Your task to perform on an android device: Add usb-c to the cart on bestbuy.com, then select checkout. Image 0: 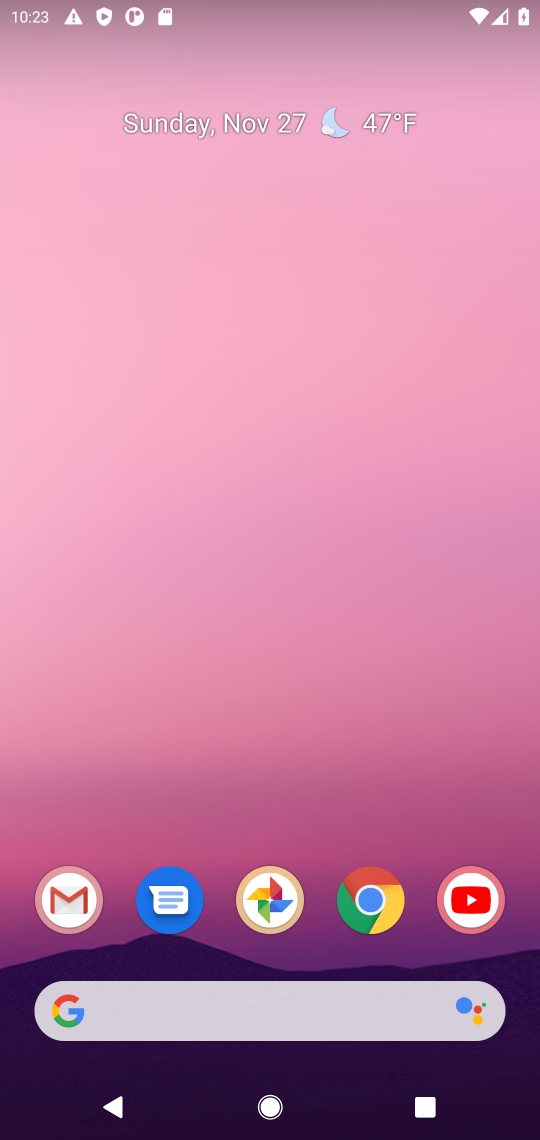
Step 0: click (372, 903)
Your task to perform on an android device: Add usb-c to the cart on bestbuy.com, then select checkout. Image 1: 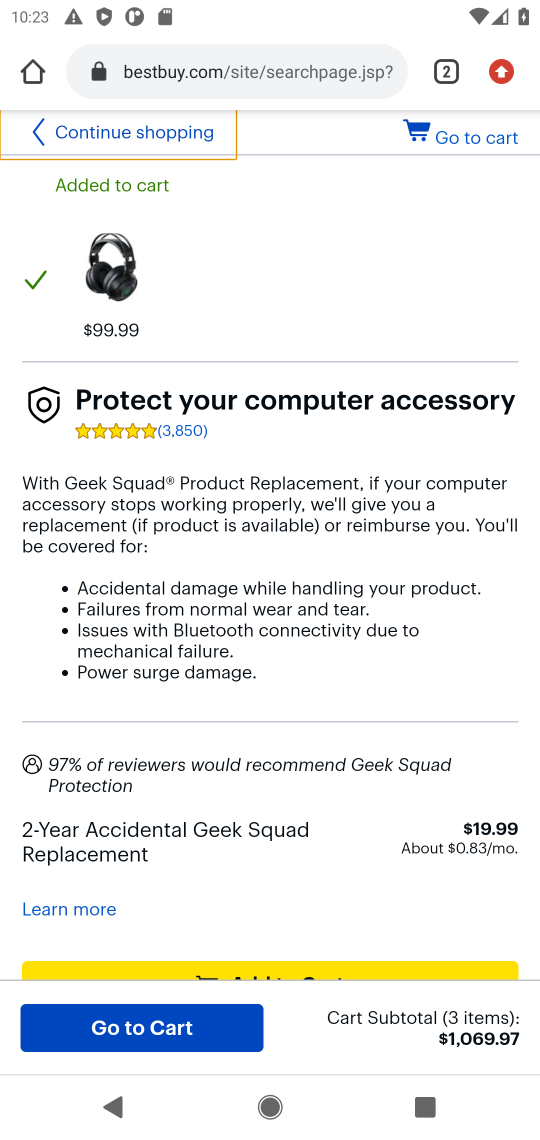
Step 1: drag from (379, 292) to (380, 689)
Your task to perform on an android device: Add usb-c to the cart on bestbuy.com, then select checkout. Image 2: 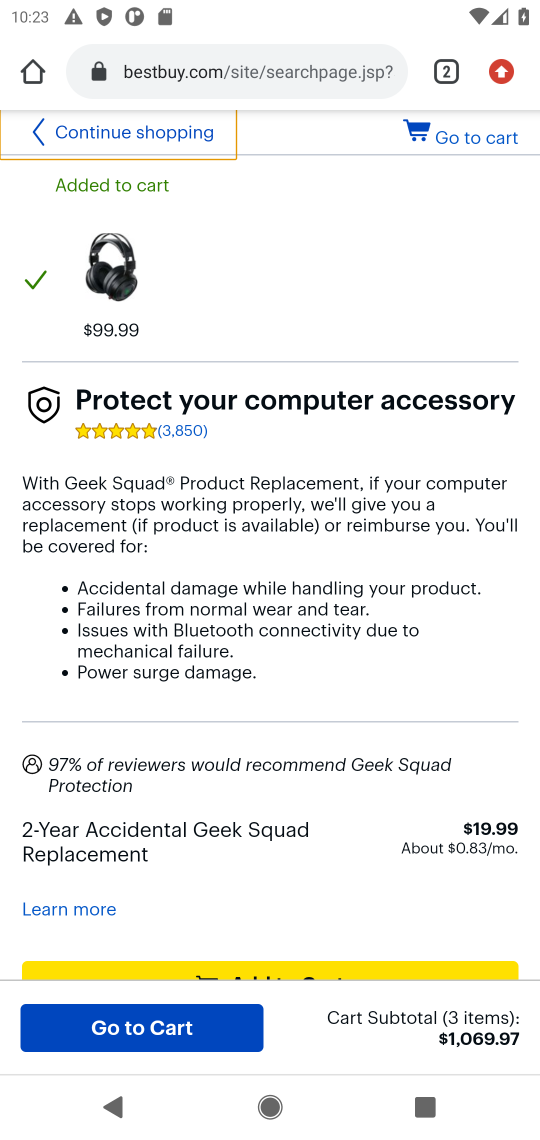
Step 2: press back button
Your task to perform on an android device: Add usb-c to the cart on bestbuy.com, then select checkout. Image 3: 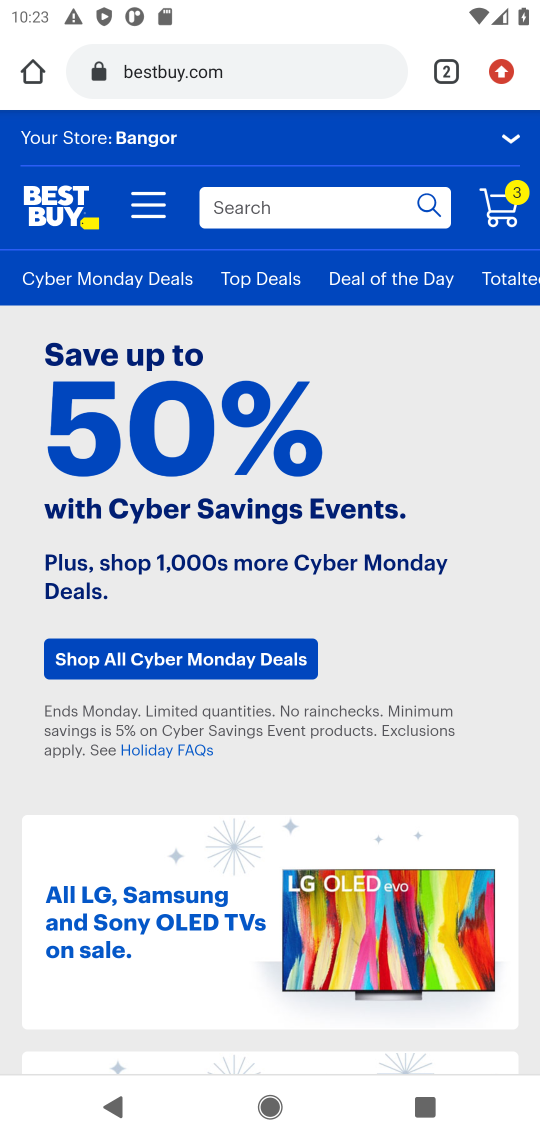
Step 3: click (242, 208)
Your task to perform on an android device: Add usb-c to the cart on bestbuy.com, then select checkout. Image 4: 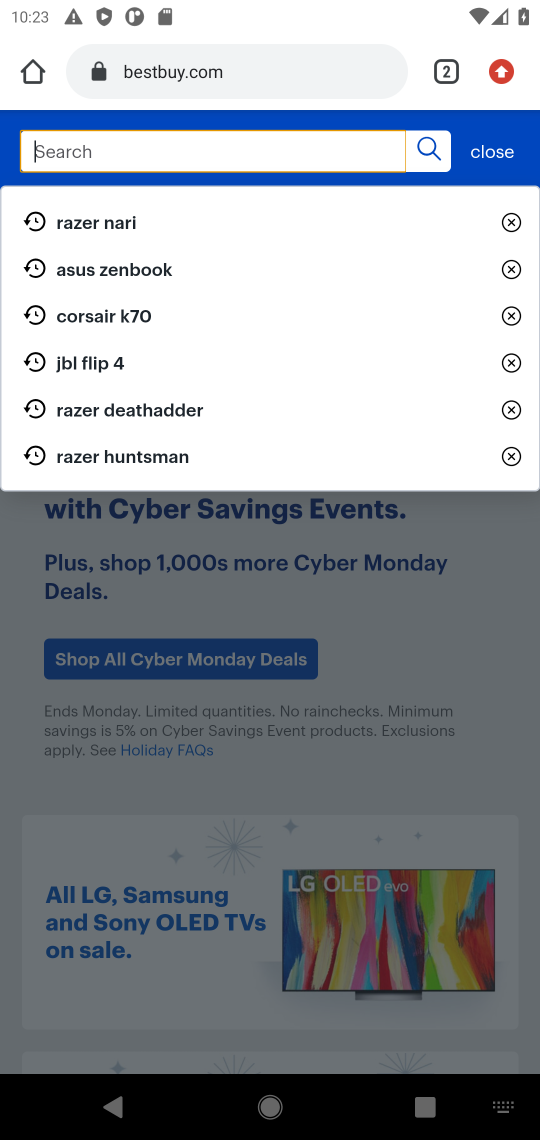
Step 4: type "usb-c"
Your task to perform on an android device: Add usb-c to the cart on bestbuy.com, then select checkout. Image 5: 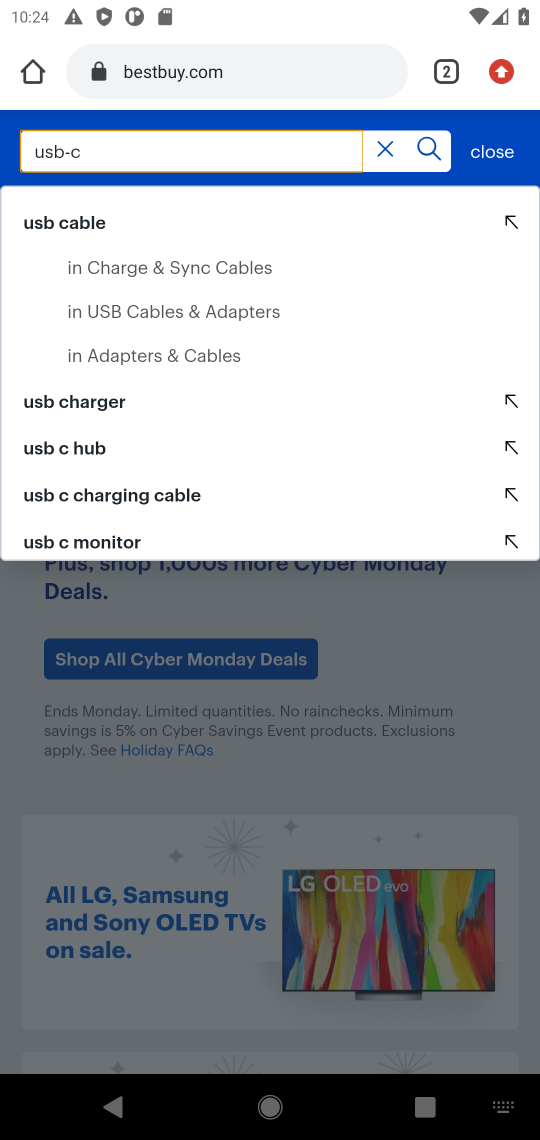
Step 5: click (54, 442)
Your task to perform on an android device: Add usb-c to the cart on bestbuy.com, then select checkout. Image 6: 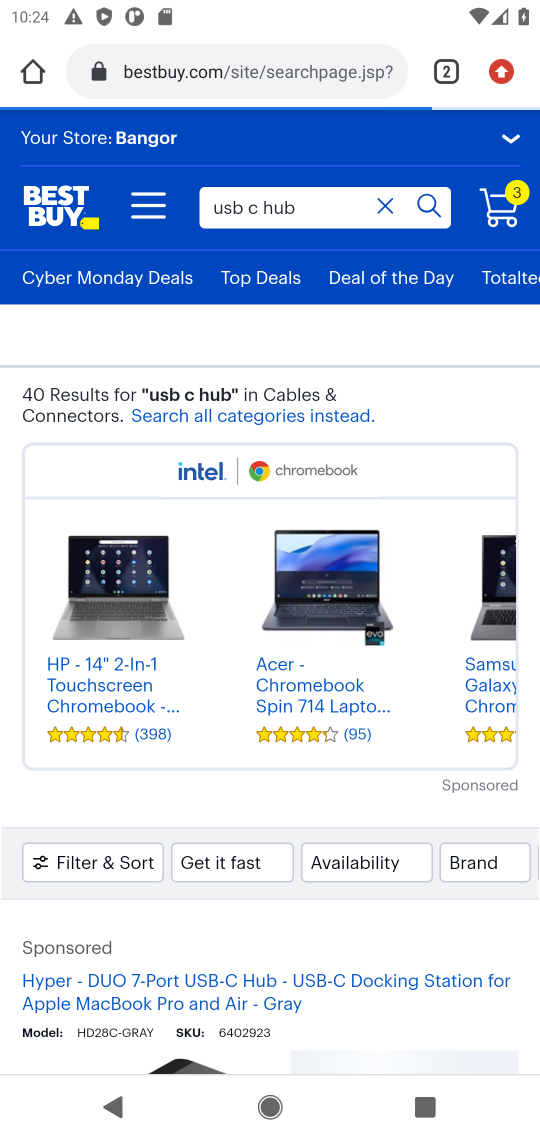
Step 6: drag from (216, 949) to (216, 628)
Your task to perform on an android device: Add usb-c to the cart on bestbuy.com, then select checkout. Image 7: 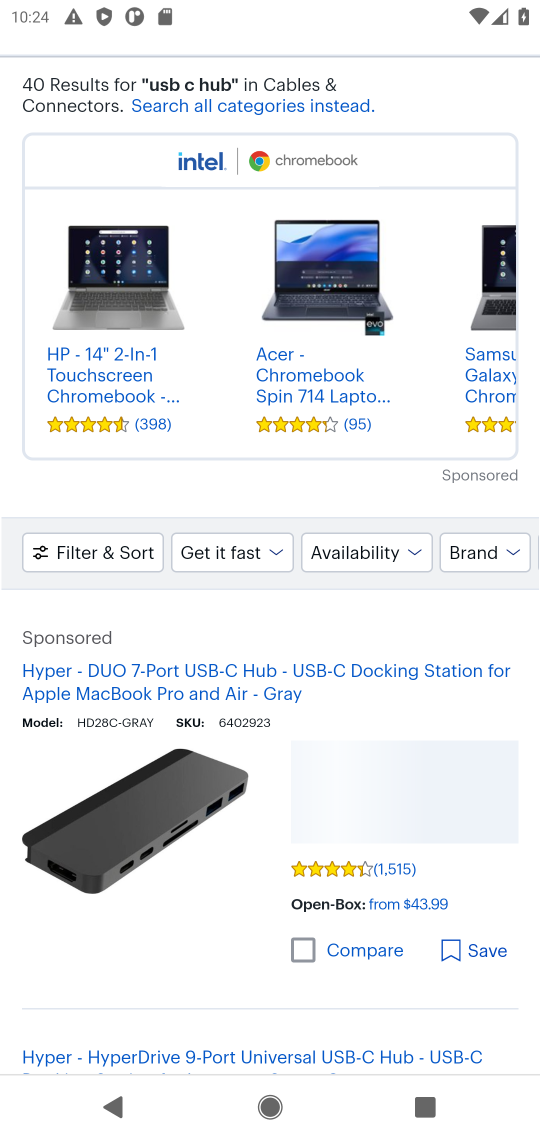
Step 7: drag from (204, 843) to (249, 597)
Your task to perform on an android device: Add usb-c to the cart on bestbuy.com, then select checkout. Image 8: 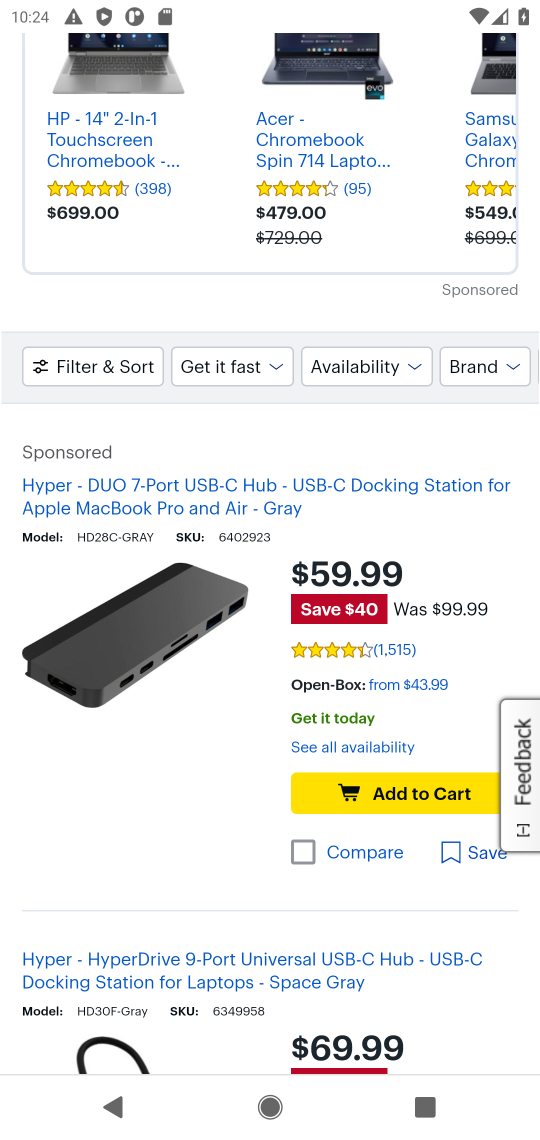
Step 8: click (371, 782)
Your task to perform on an android device: Add usb-c to the cart on bestbuy.com, then select checkout. Image 9: 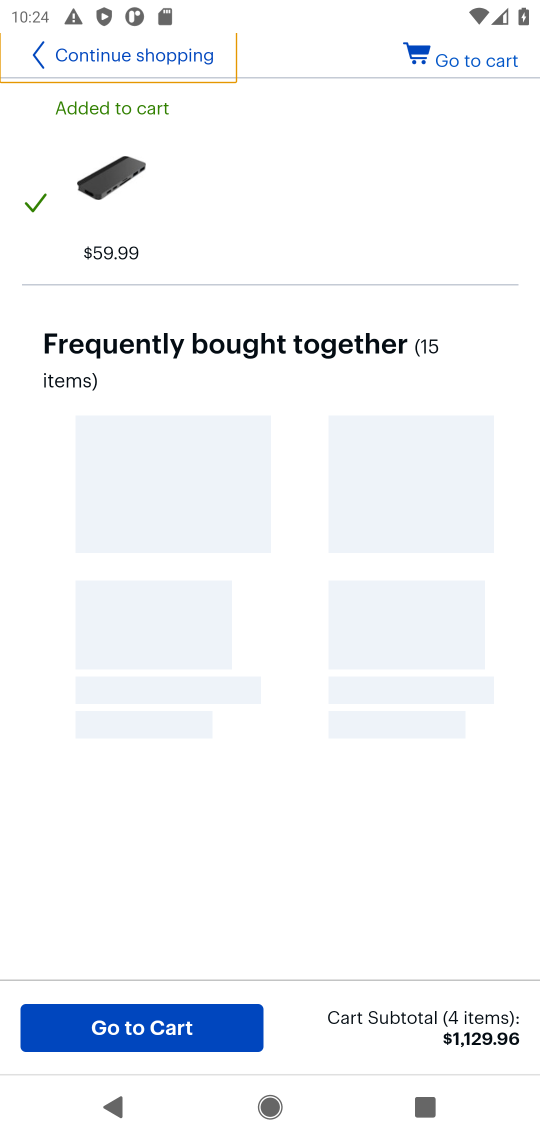
Step 9: click (476, 60)
Your task to perform on an android device: Add usb-c to the cart on bestbuy.com, then select checkout. Image 10: 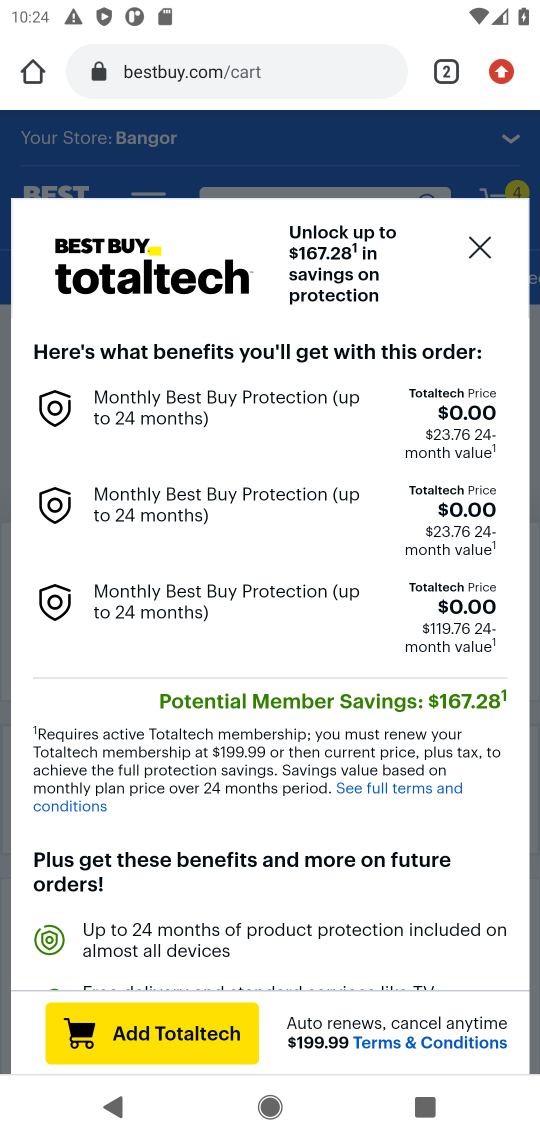
Step 10: click (482, 252)
Your task to perform on an android device: Add usb-c to the cart on bestbuy.com, then select checkout. Image 11: 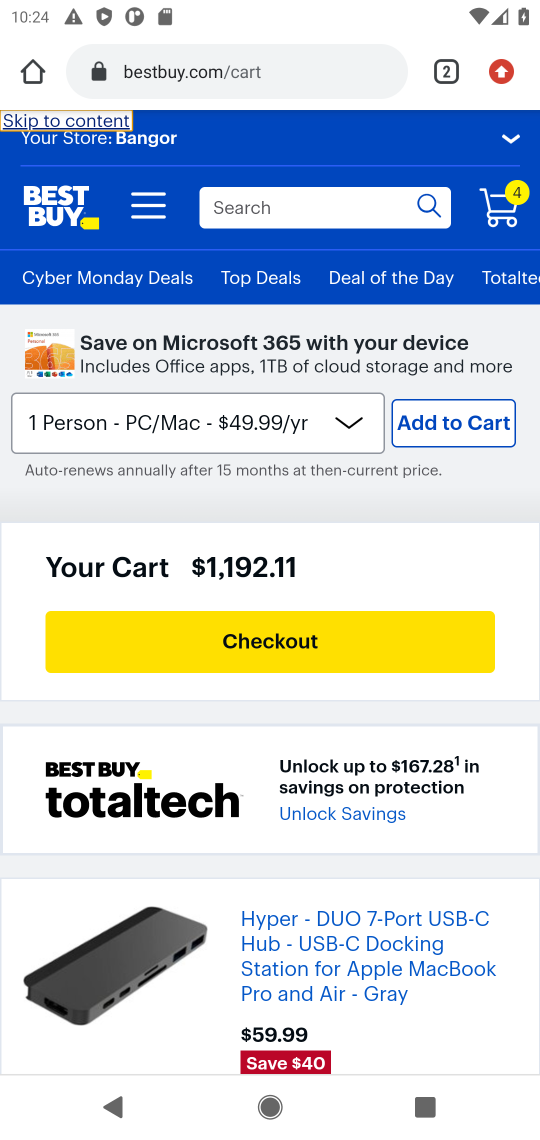
Step 11: click (243, 626)
Your task to perform on an android device: Add usb-c to the cart on bestbuy.com, then select checkout. Image 12: 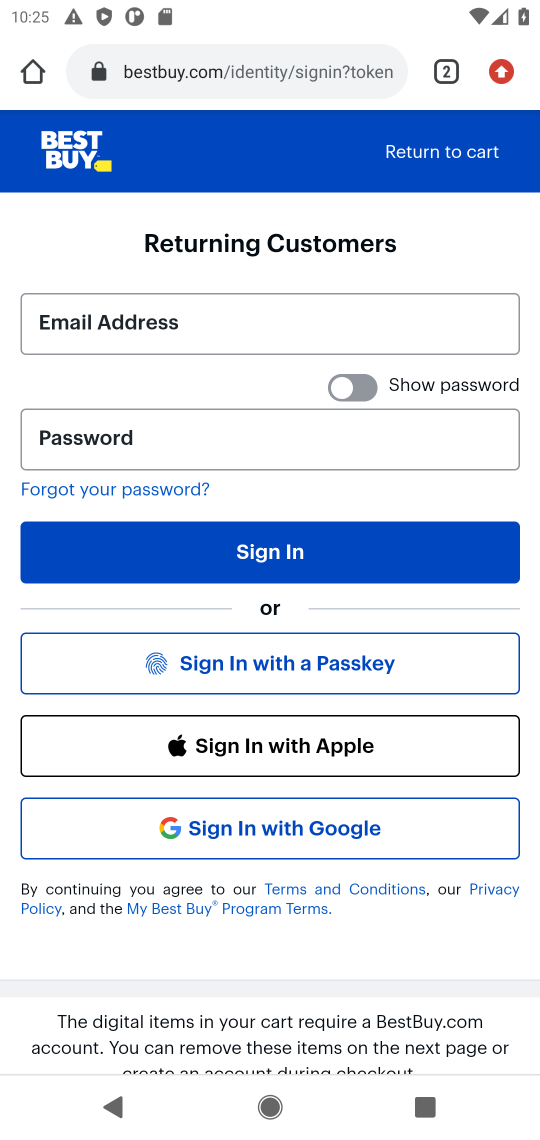
Step 12: task complete